Your task to perform on an android device: Go to Reddit.com Image 0: 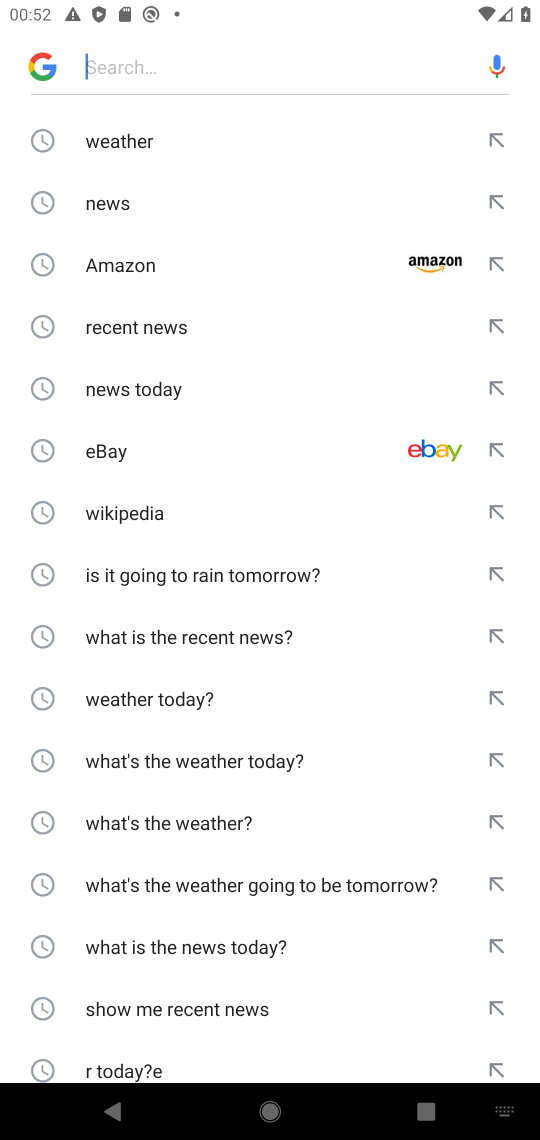
Step 0: type "reddit.com"
Your task to perform on an android device: Go to Reddit.com Image 1: 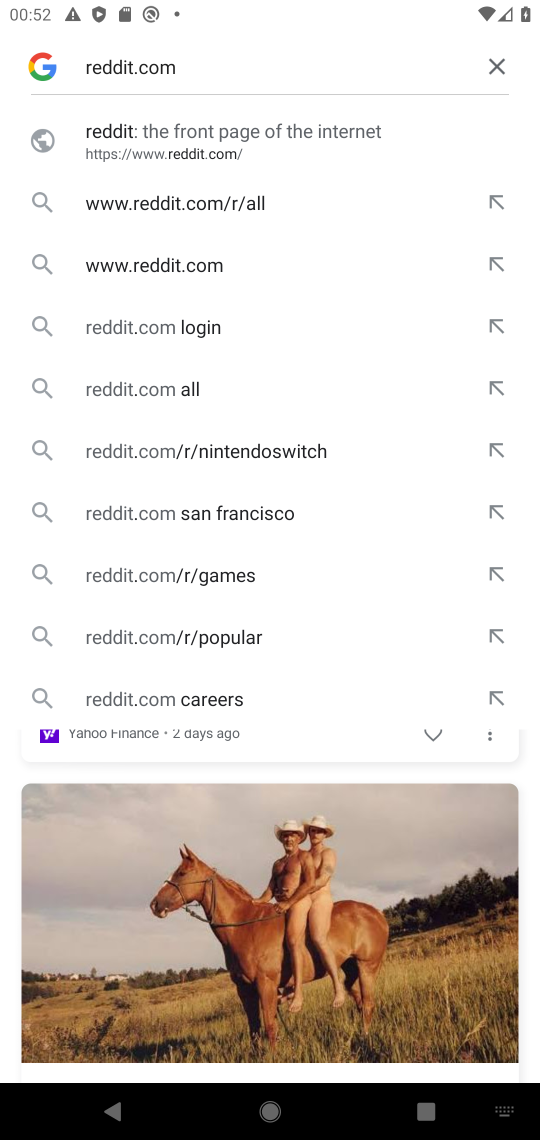
Step 1: click (189, 130)
Your task to perform on an android device: Go to Reddit.com Image 2: 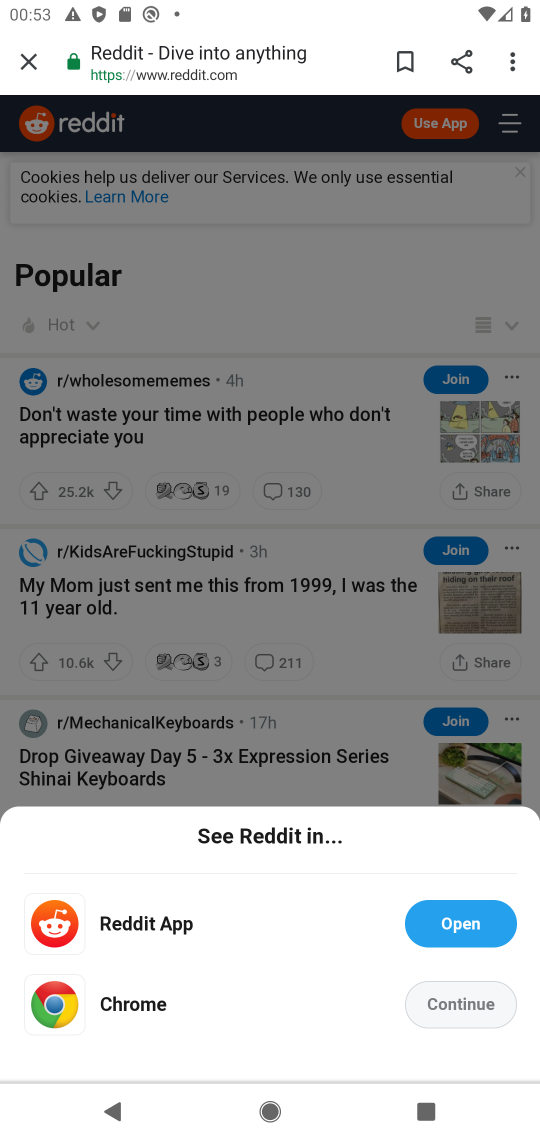
Step 2: click (475, 1005)
Your task to perform on an android device: Go to Reddit.com Image 3: 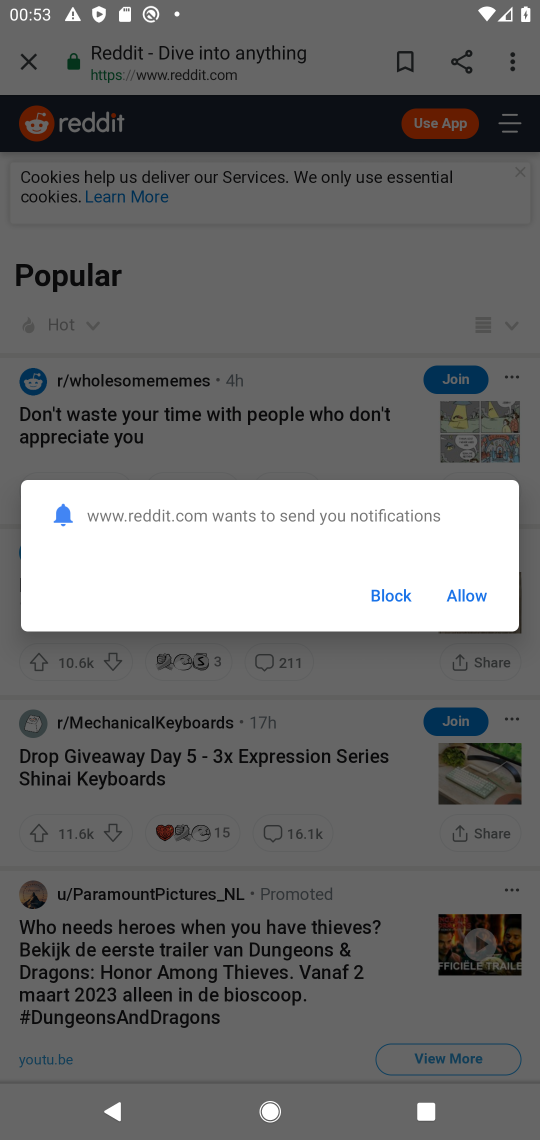
Step 3: click (458, 582)
Your task to perform on an android device: Go to Reddit.com Image 4: 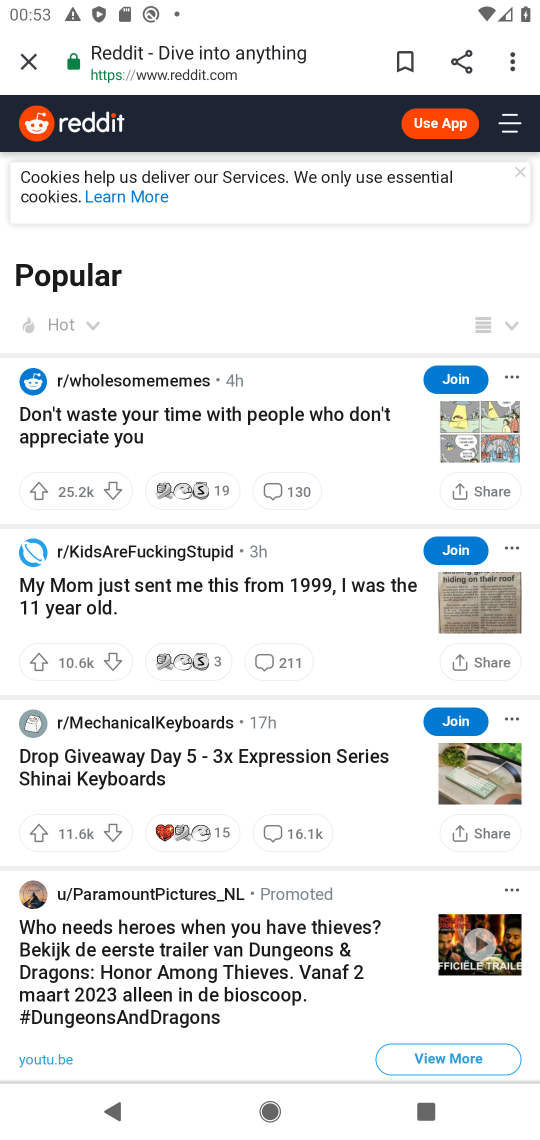
Step 4: task complete